Your task to perform on an android device: Open Maps and search for coffee Image 0: 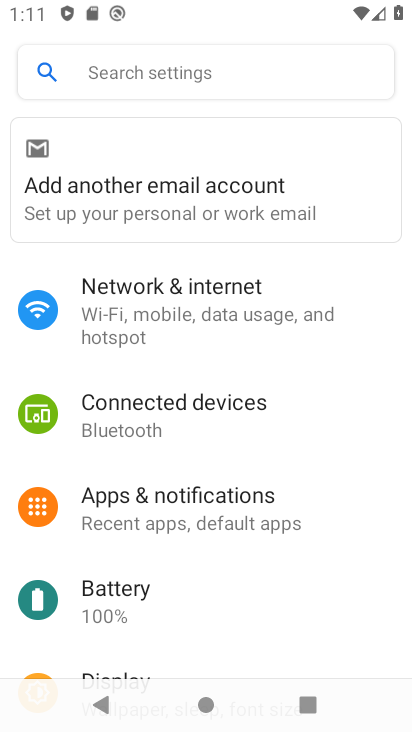
Step 0: press home button
Your task to perform on an android device: Open Maps and search for coffee Image 1: 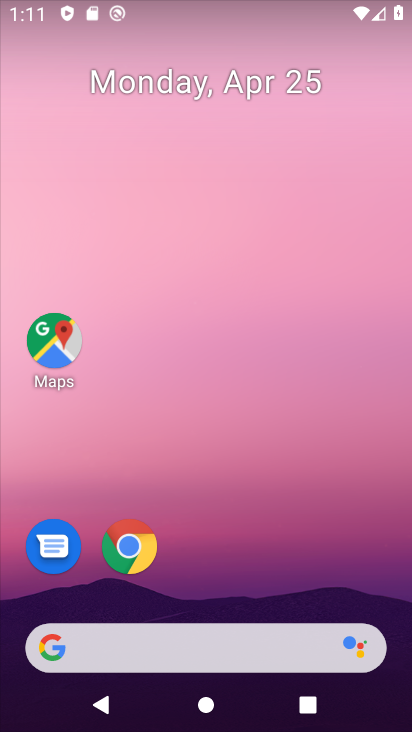
Step 1: drag from (210, 617) to (246, 21)
Your task to perform on an android device: Open Maps and search for coffee Image 2: 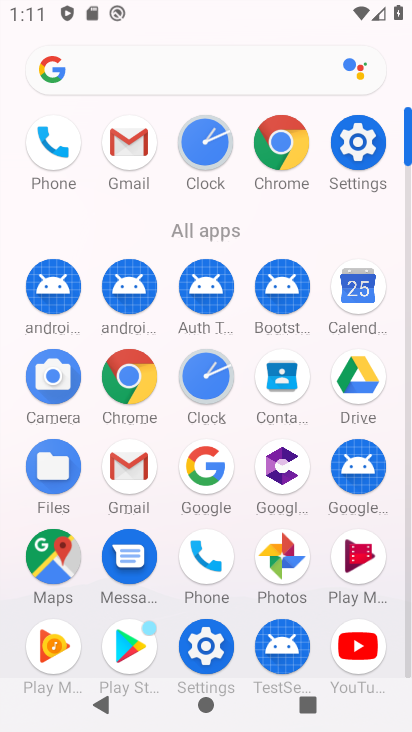
Step 2: click (47, 578)
Your task to perform on an android device: Open Maps and search for coffee Image 3: 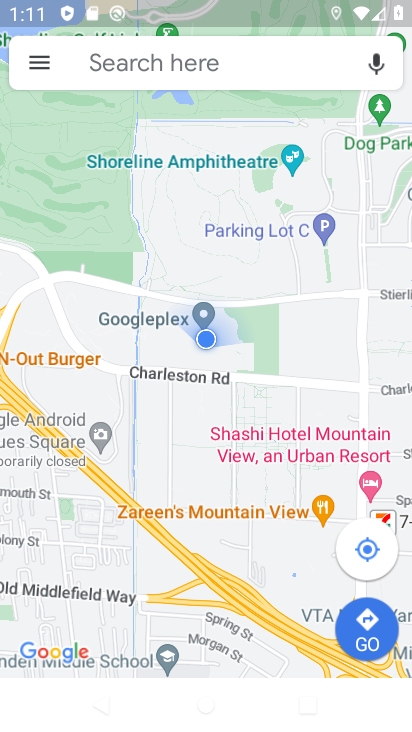
Step 3: click (190, 72)
Your task to perform on an android device: Open Maps and search for coffee Image 4: 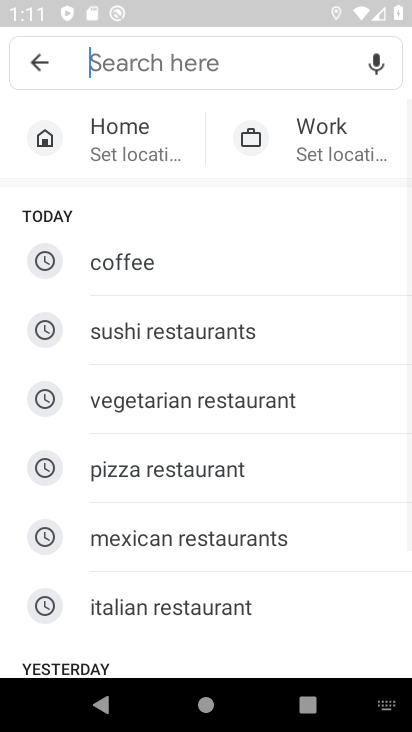
Step 4: click (157, 255)
Your task to perform on an android device: Open Maps and search for coffee Image 5: 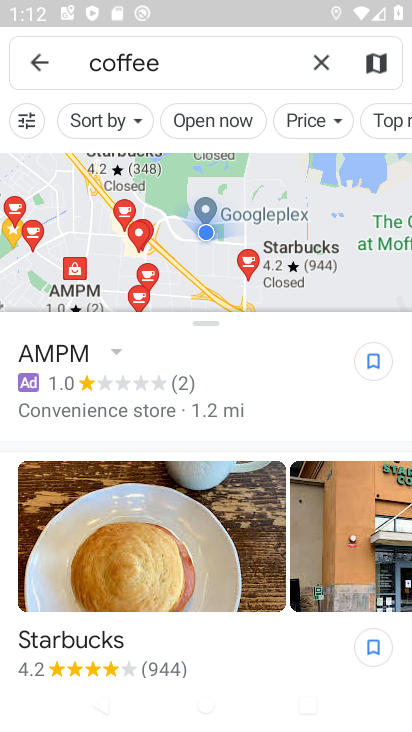
Step 5: task complete